Your task to perform on an android device: turn off improve location accuracy Image 0: 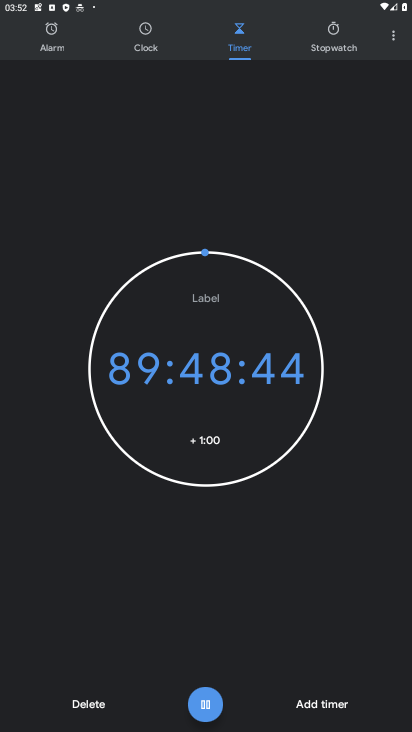
Step 0: press home button
Your task to perform on an android device: turn off improve location accuracy Image 1: 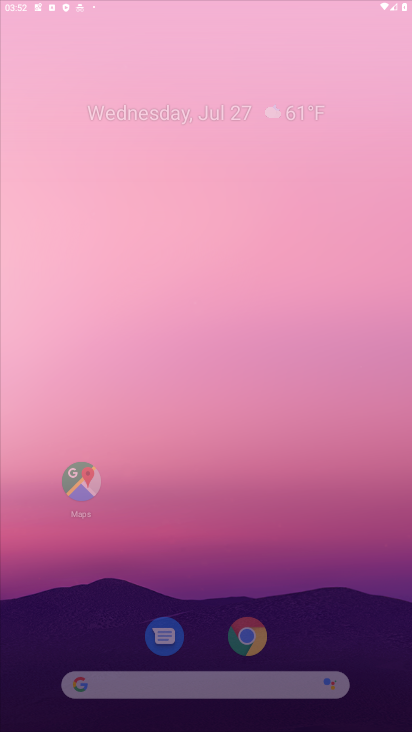
Step 1: drag from (269, 719) to (160, 5)
Your task to perform on an android device: turn off improve location accuracy Image 2: 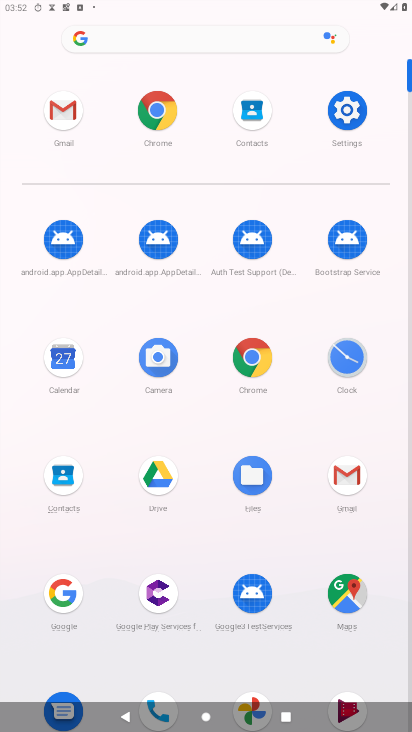
Step 2: click (336, 108)
Your task to perform on an android device: turn off improve location accuracy Image 3: 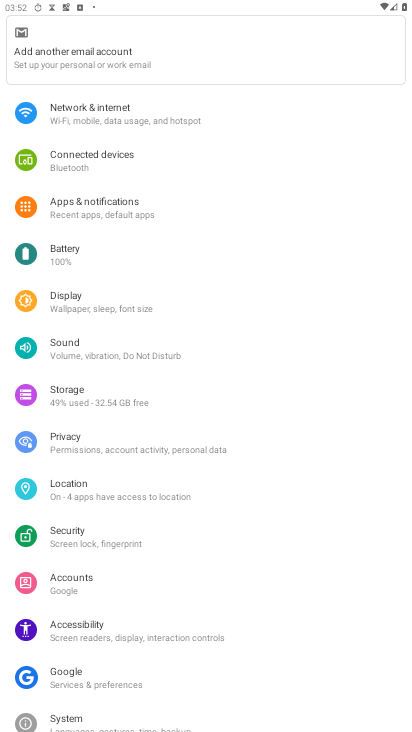
Step 3: click (135, 490)
Your task to perform on an android device: turn off improve location accuracy Image 4: 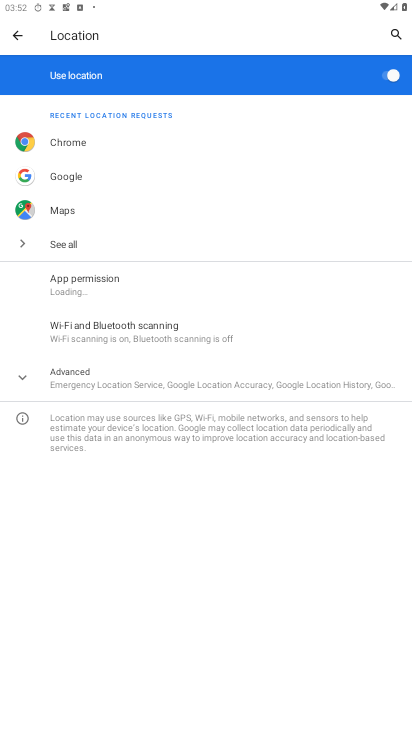
Step 4: click (191, 372)
Your task to perform on an android device: turn off improve location accuracy Image 5: 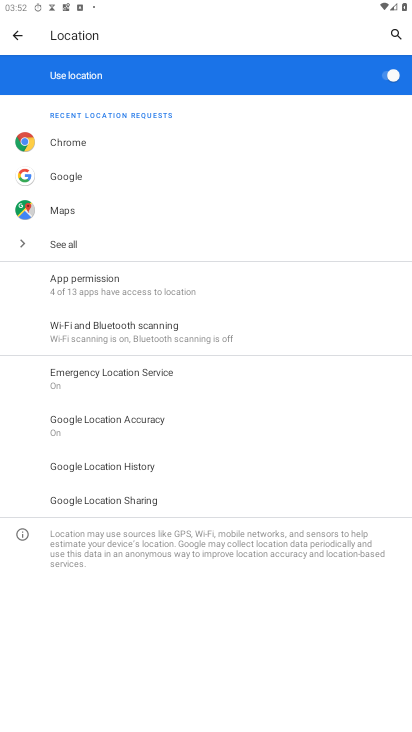
Step 5: click (175, 421)
Your task to perform on an android device: turn off improve location accuracy Image 6: 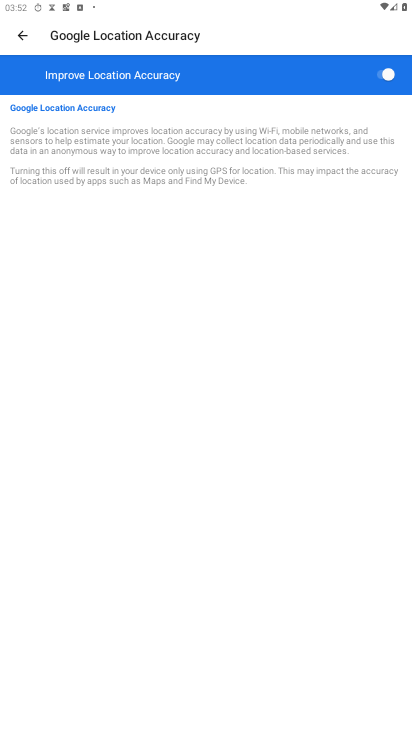
Step 6: click (388, 66)
Your task to perform on an android device: turn off improve location accuracy Image 7: 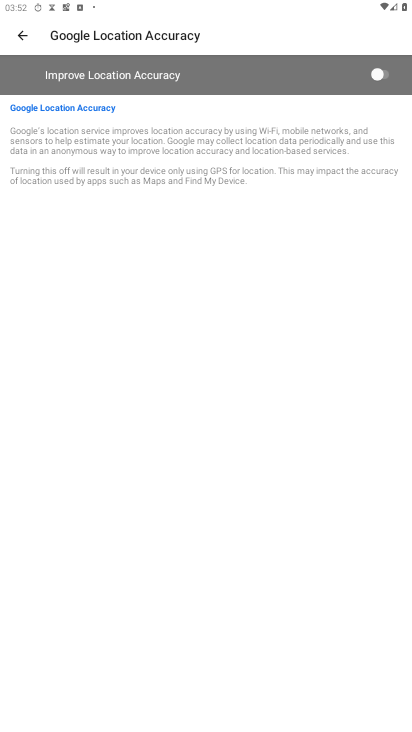
Step 7: task complete